Your task to perform on an android device: check android version Image 0: 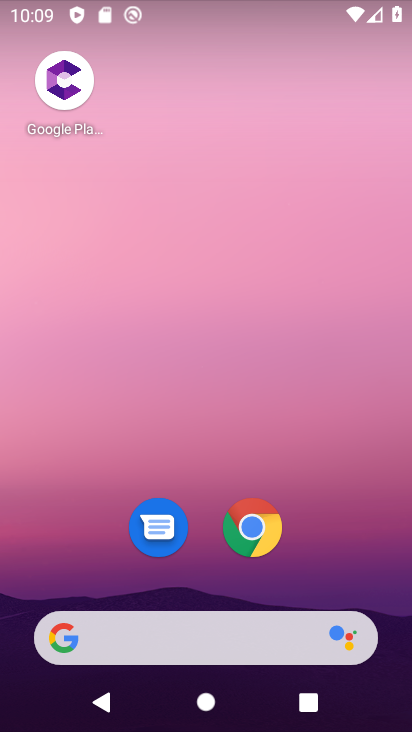
Step 0: drag from (215, 584) to (192, 87)
Your task to perform on an android device: check android version Image 1: 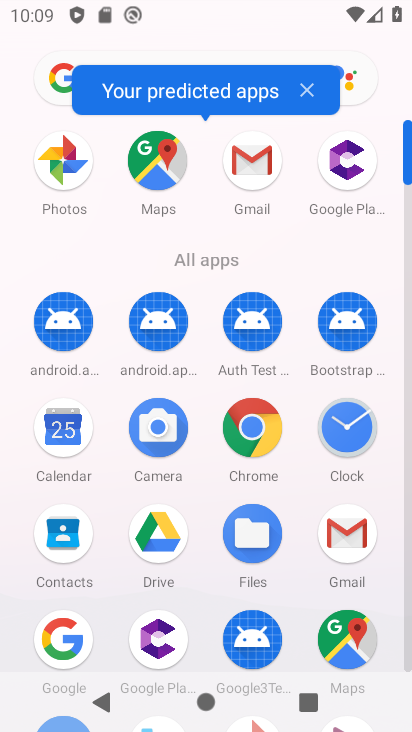
Step 1: drag from (215, 588) to (242, 133)
Your task to perform on an android device: check android version Image 2: 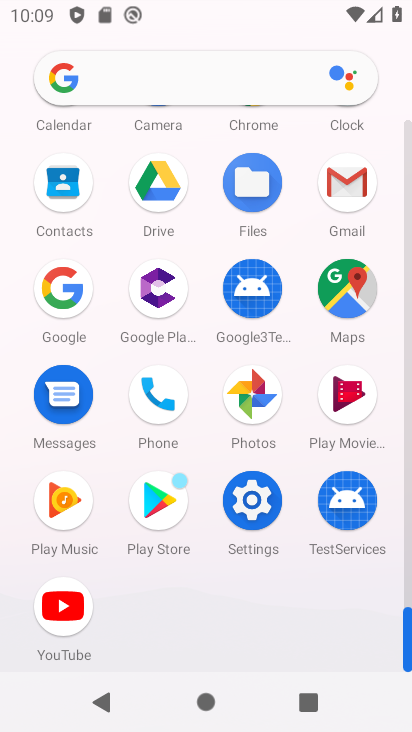
Step 2: click (250, 504)
Your task to perform on an android device: check android version Image 3: 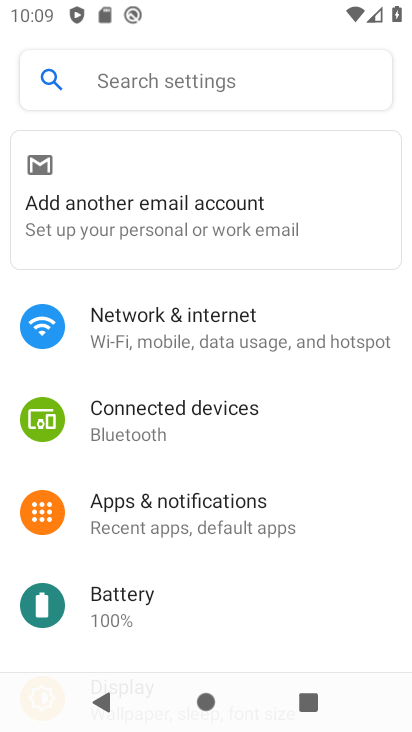
Step 3: drag from (228, 597) to (232, 94)
Your task to perform on an android device: check android version Image 4: 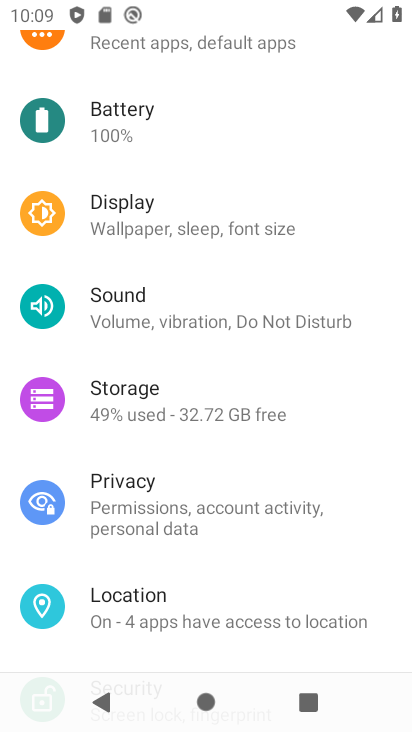
Step 4: drag from (197, 593) to (248, 183)
Your task to perform on an android device: check android version Image 5: 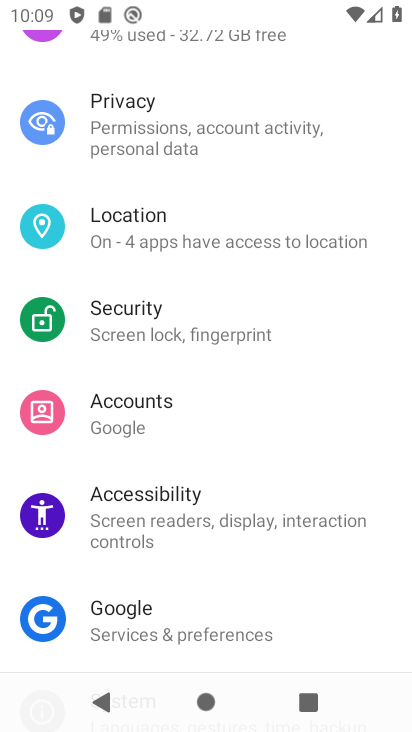
Step 5: drag from (164, 616) to (239, 233)
Your task to perform on an android device: check android version Image 6: 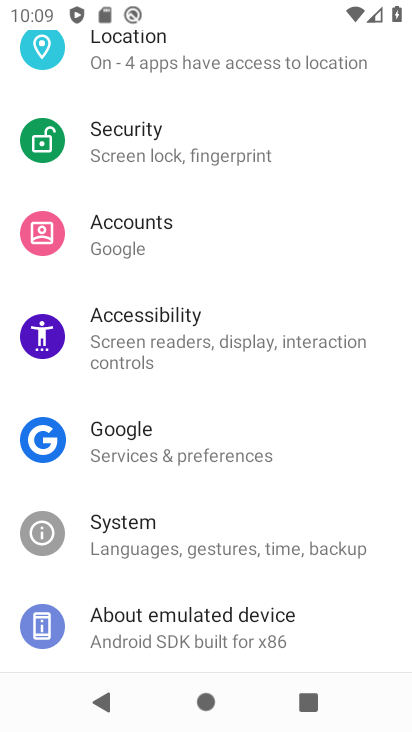
Step 6: click (162, 635)
Your task to perform on an android device: check android version Image 7: 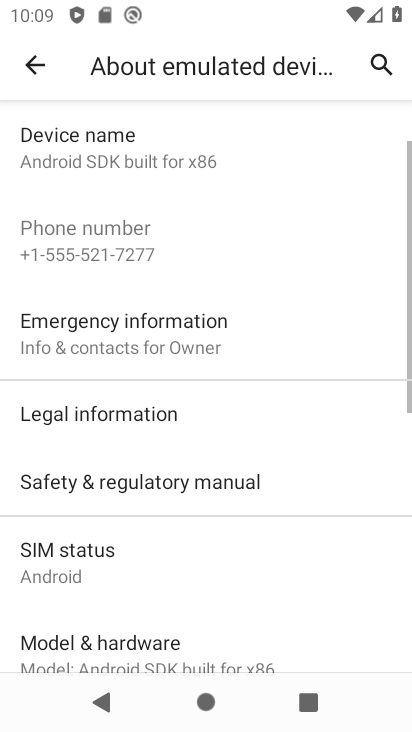
Step 7: drag from (162, 635) to (225, 41)
Your task to perform on an android device: check android version Image 8: 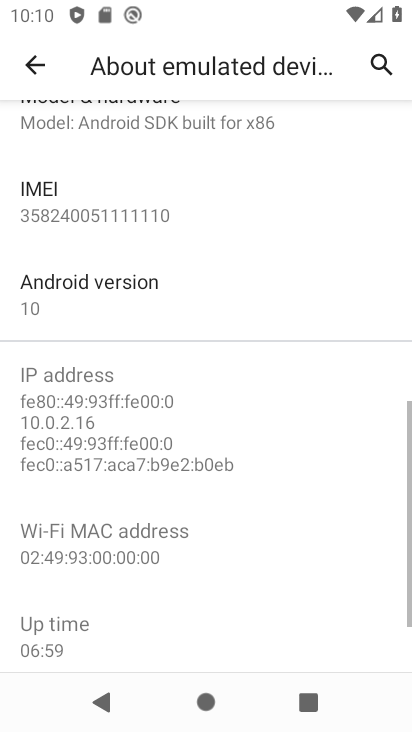
Step 8: click (120, 268)
Your task to perform on an android device: check android version Image 9: 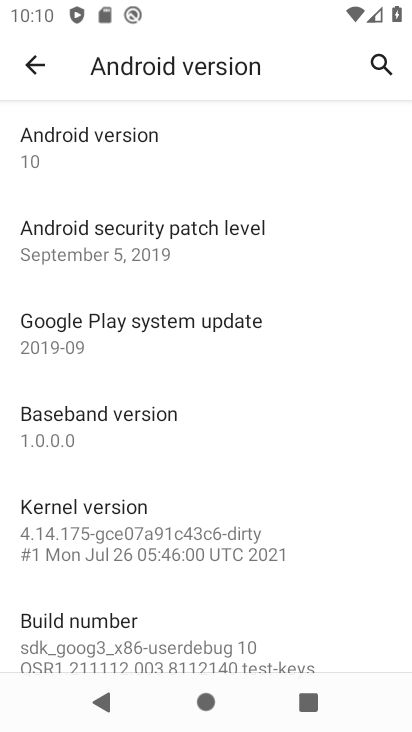
Step 9: task complete